Your task to perform on an android device: Do I have any events today? Image 0: 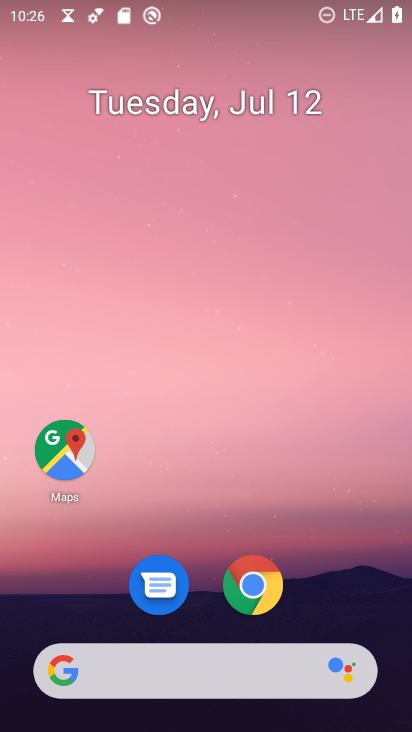
Step 0: press home button
Your task to perform on an android device: Do I have any events today? Image 1: 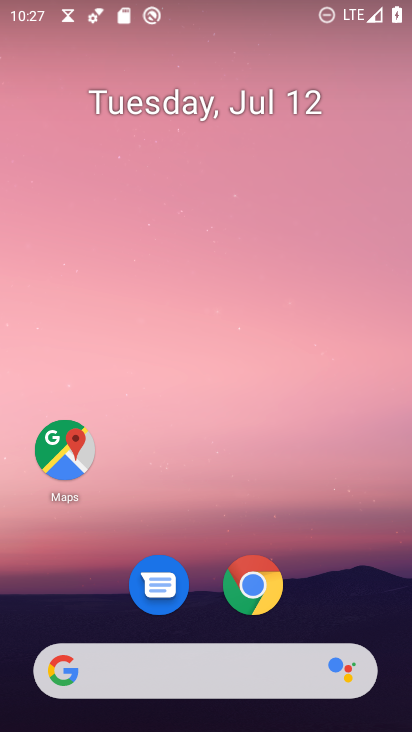
Step 1: drag from (202, 667) to (385, 15)
Your task to perform on an android device: Do I have any events today? Image 2: 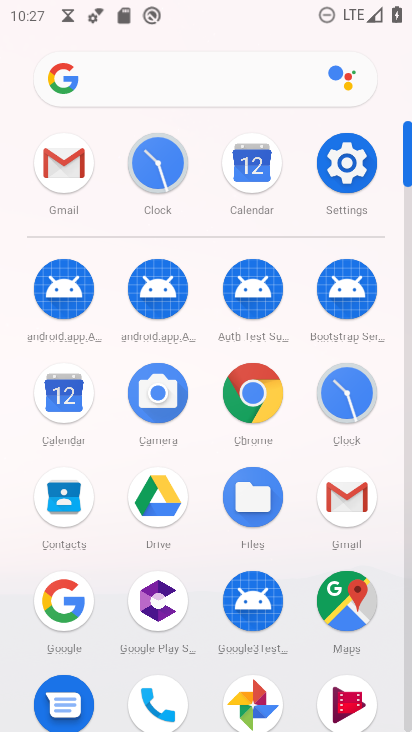
Step 2: click (71, 395)
Your task to perform on an android device: Do I have any events today? Image 3: 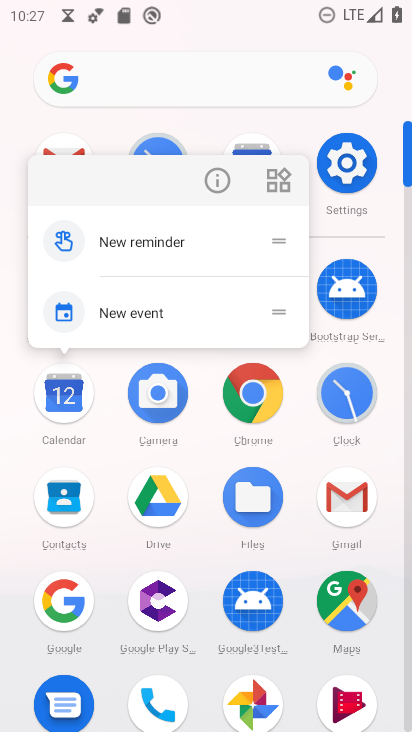
Step 3: click (70, 400)
Your task to perform on an android device: Do I have any events today? Image 4: 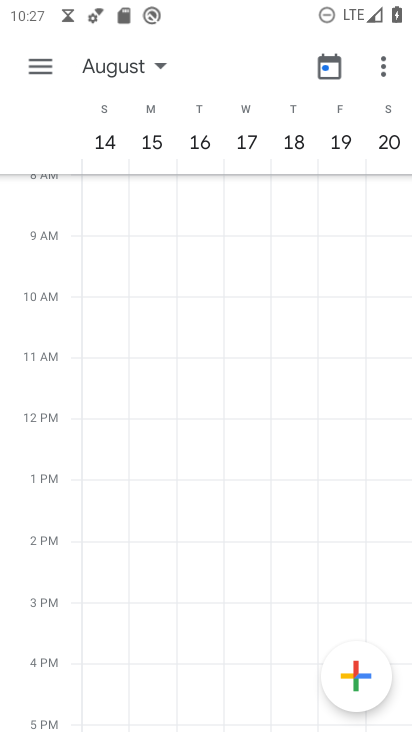
Step 4: click (127, 75)
Your task to perform on an android device: Do I have any events today? Image 5: 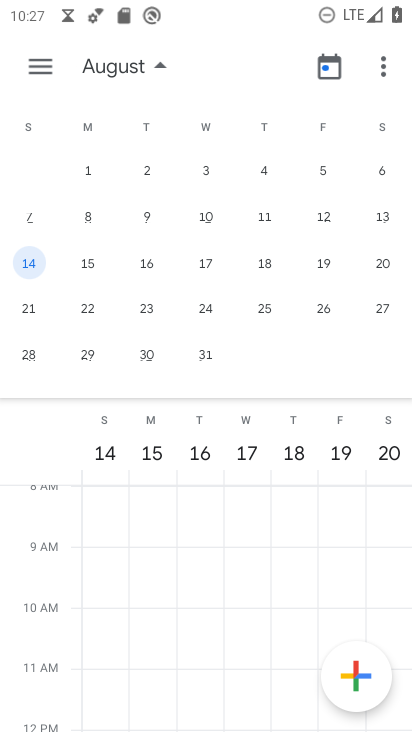
Step 5: drag from (76, 280) to (411, 286)
Your task to perform on an android device: Do I have any events today? Image 6: 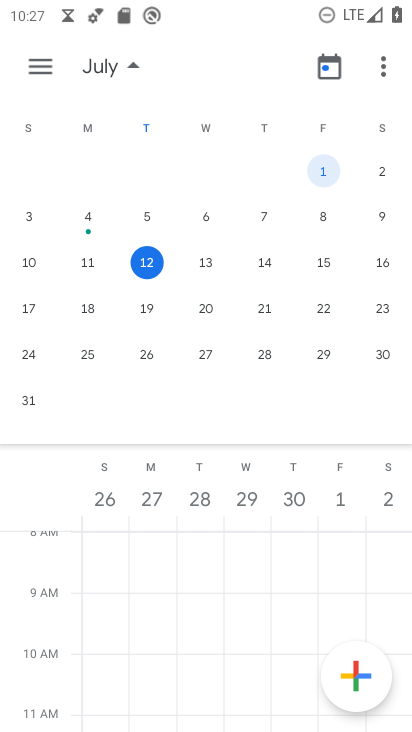
Step 6: click (153, 265)
Your task to perform on an android device: Do I have any events today? Image 7: 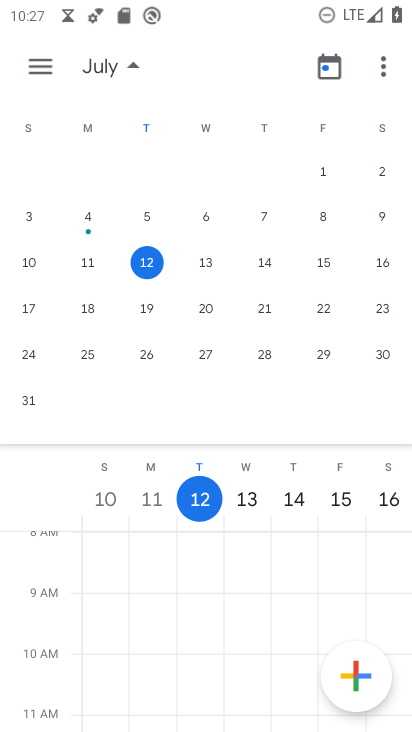
Step 7: click (33, 68)
Your task to perform on an android device: Do I have any events today? Image 8: 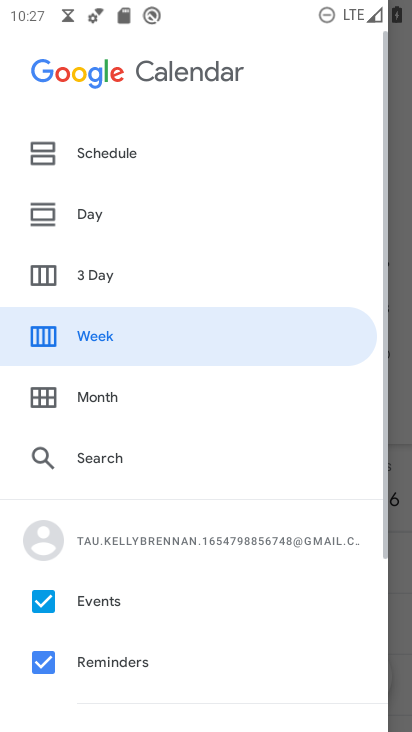
Step 8: click (85, 211)
Your task to perform on an android device: Do I have any events today? Image 9: 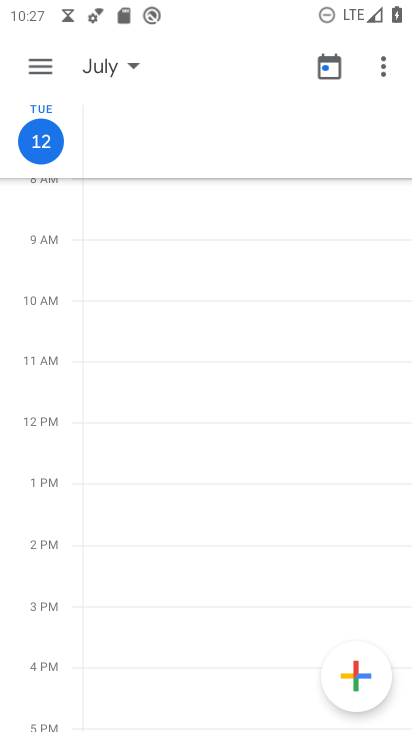
Step 9: click (29, 66)
Your task to perform on an android device: Do I have any events today? Image 10: 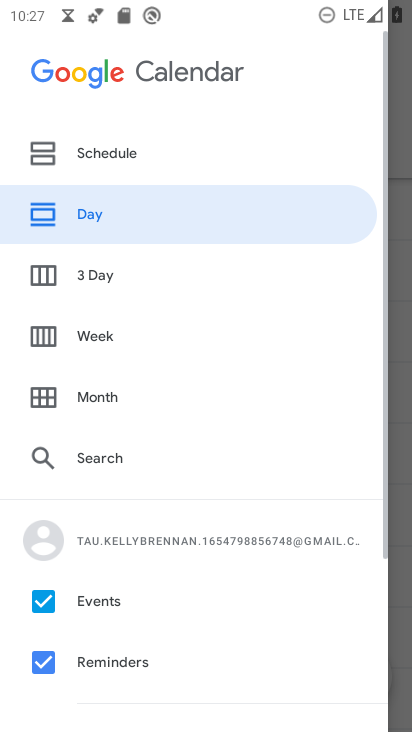
Step 10: click (108, 152)
Your task to perform on an android device: Do I have any events today? Image 11: 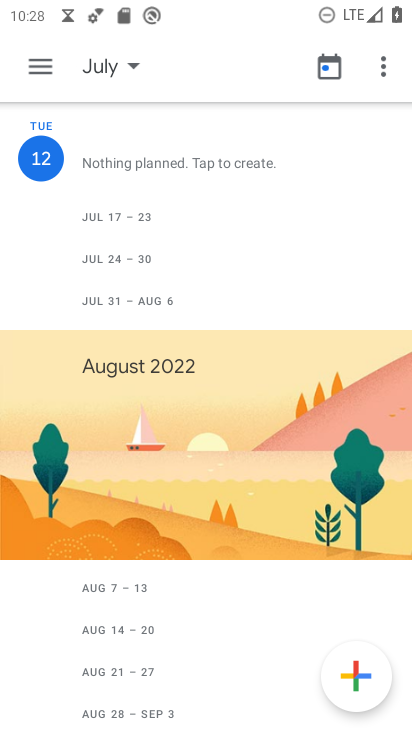
Step 11: task complete